Your task to perform on an android device: uninstall "Lyft - Rideshare, Bikes, Scooters & Transit" Image 0: 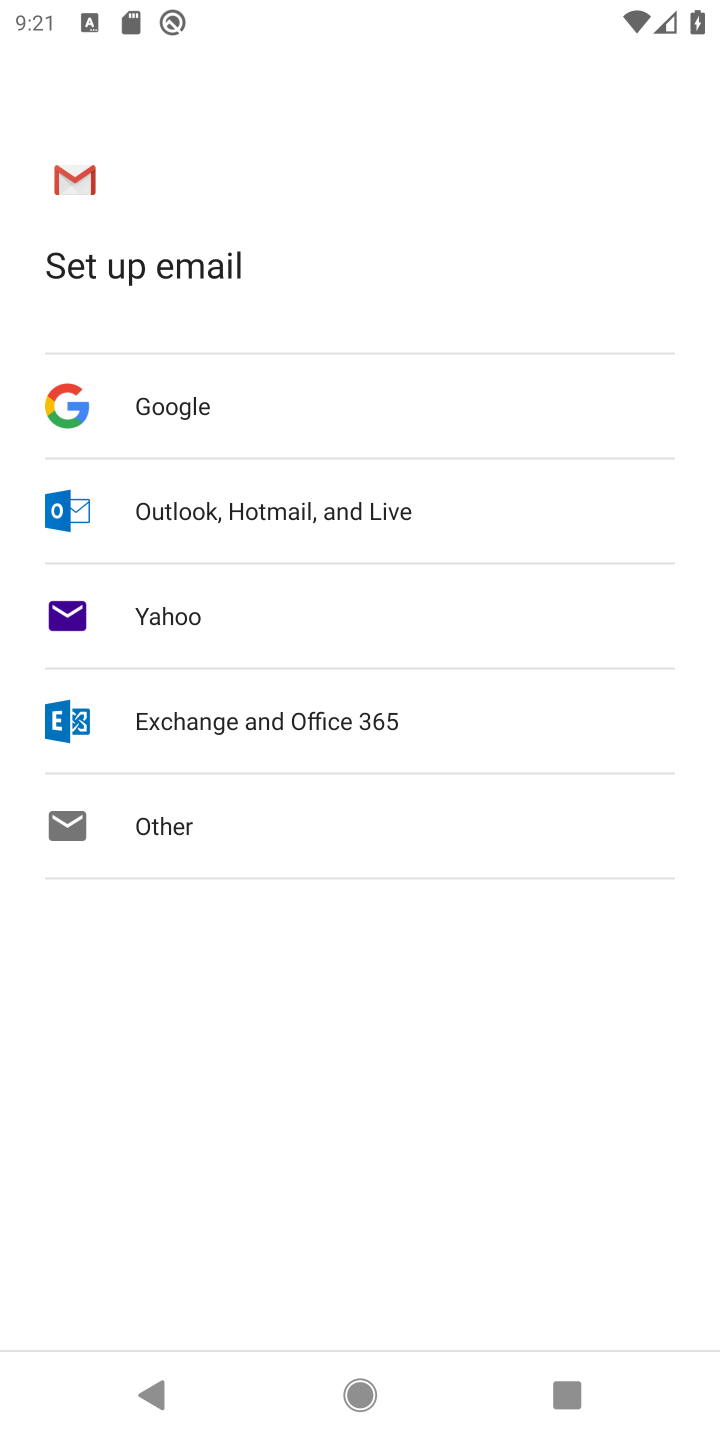
Step 0: press home button
Your task to perform on an android device: uninstall "Lyft - Rideshare, Bikes, Scooters & Transit" Image 1: 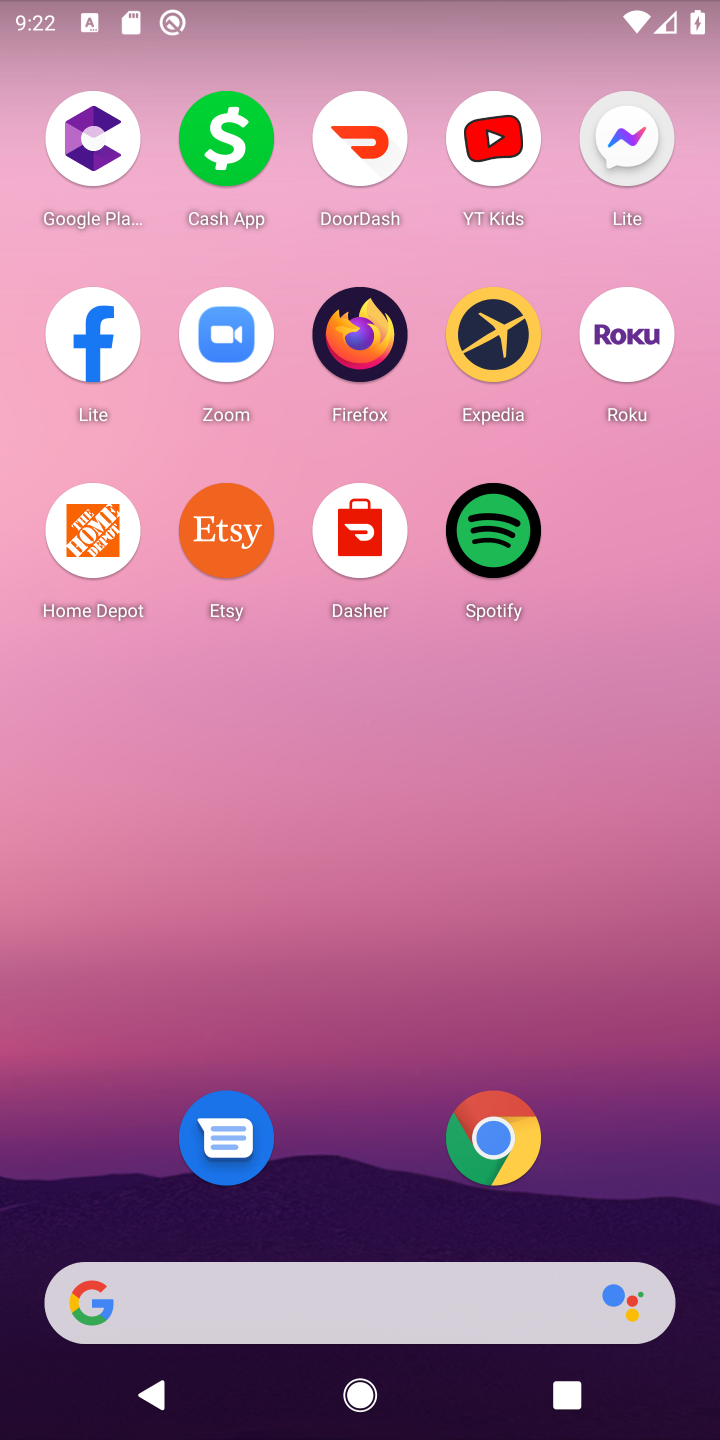
Step 1: drag from (323, 1223) to (385, 347)
Your task to perform on an android device: uninstall "Lyft - Rideshare, Bikes, Scooters & Transit" Image 2: 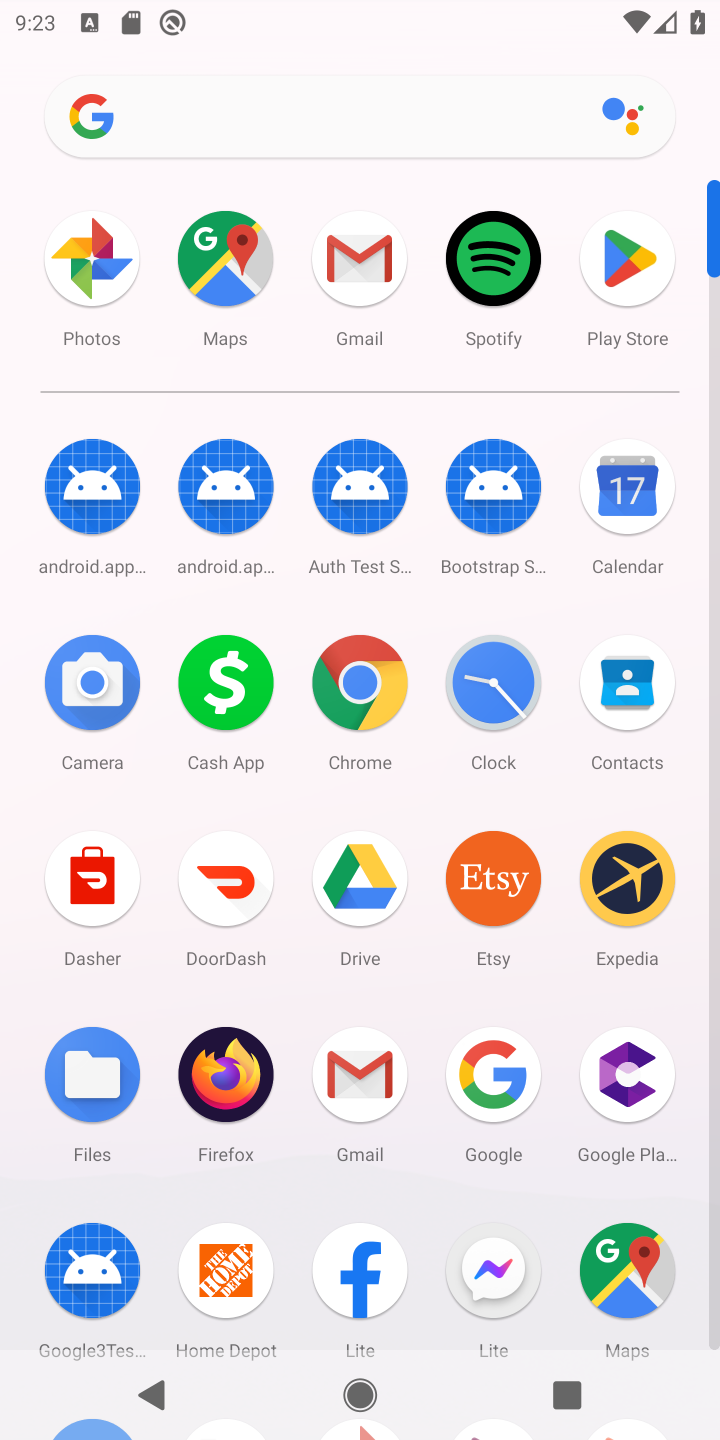
Step 2: click (634, 277)
Your task to perform on an android device: uninstall "Lyft - Rideshare, Bikes, Scooters & Transit" Image 3: 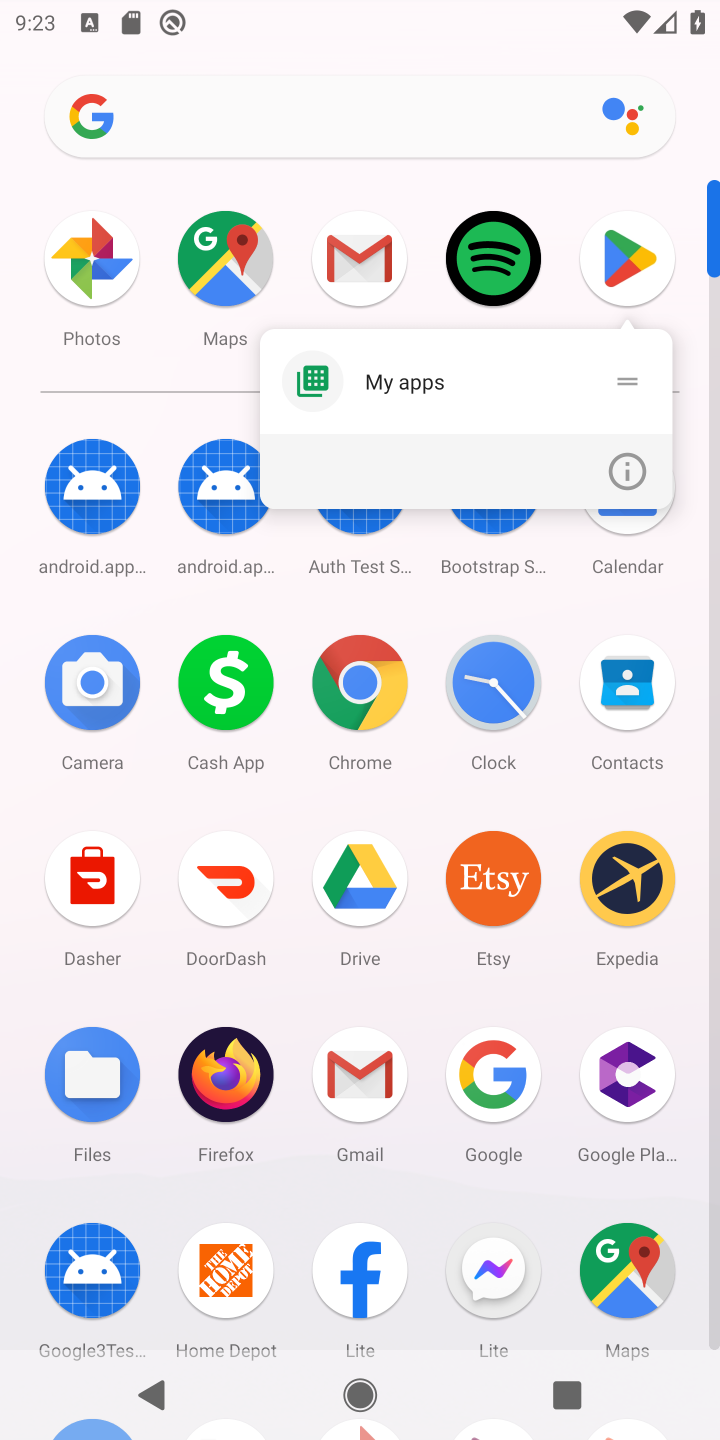
Step 3: click (631, 274)
Your task to perform on an android device: uninstall "Lyft - Rideshare, Bikes, Scooters & Transit" Image 4: 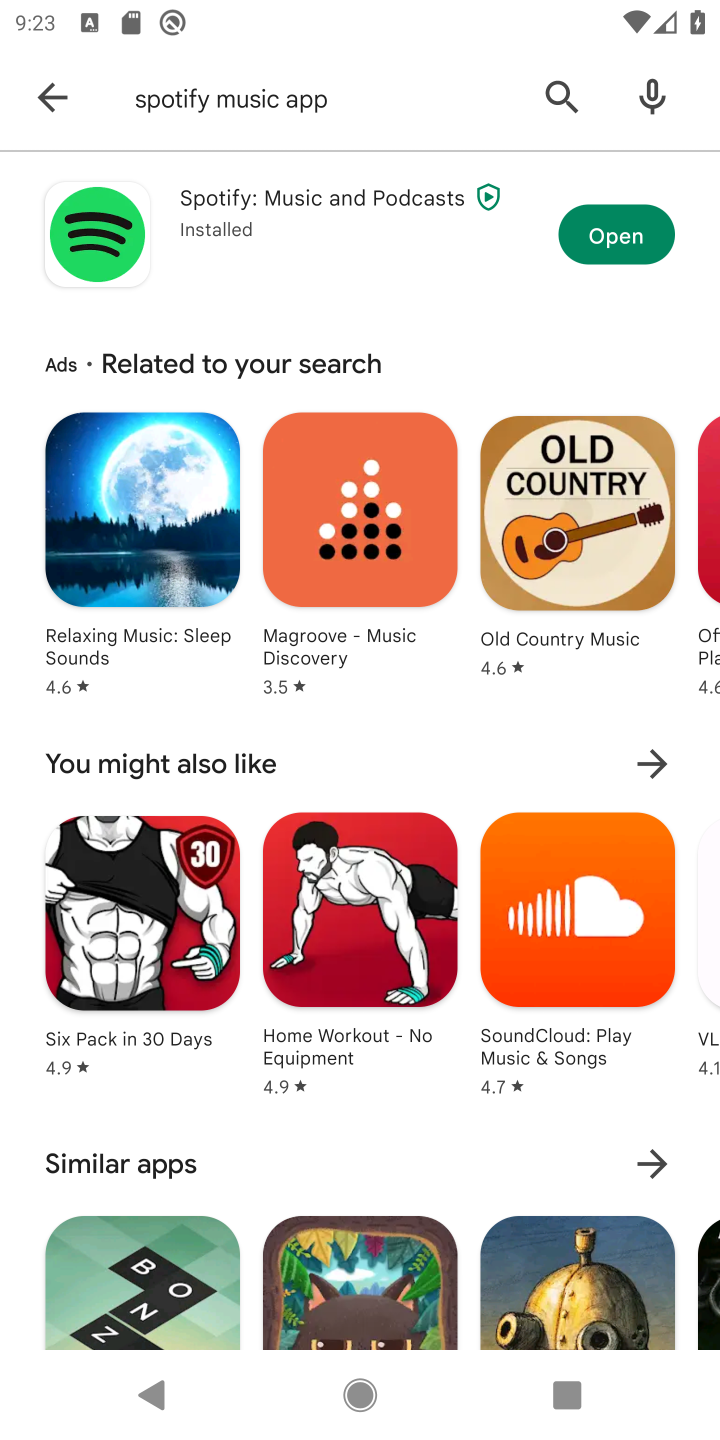
Step 4: click (63, 82)
Your task to perform on an android device: uninstall "Lyft - Rideshare, Bikes, Scooters & Transit" Image 5: 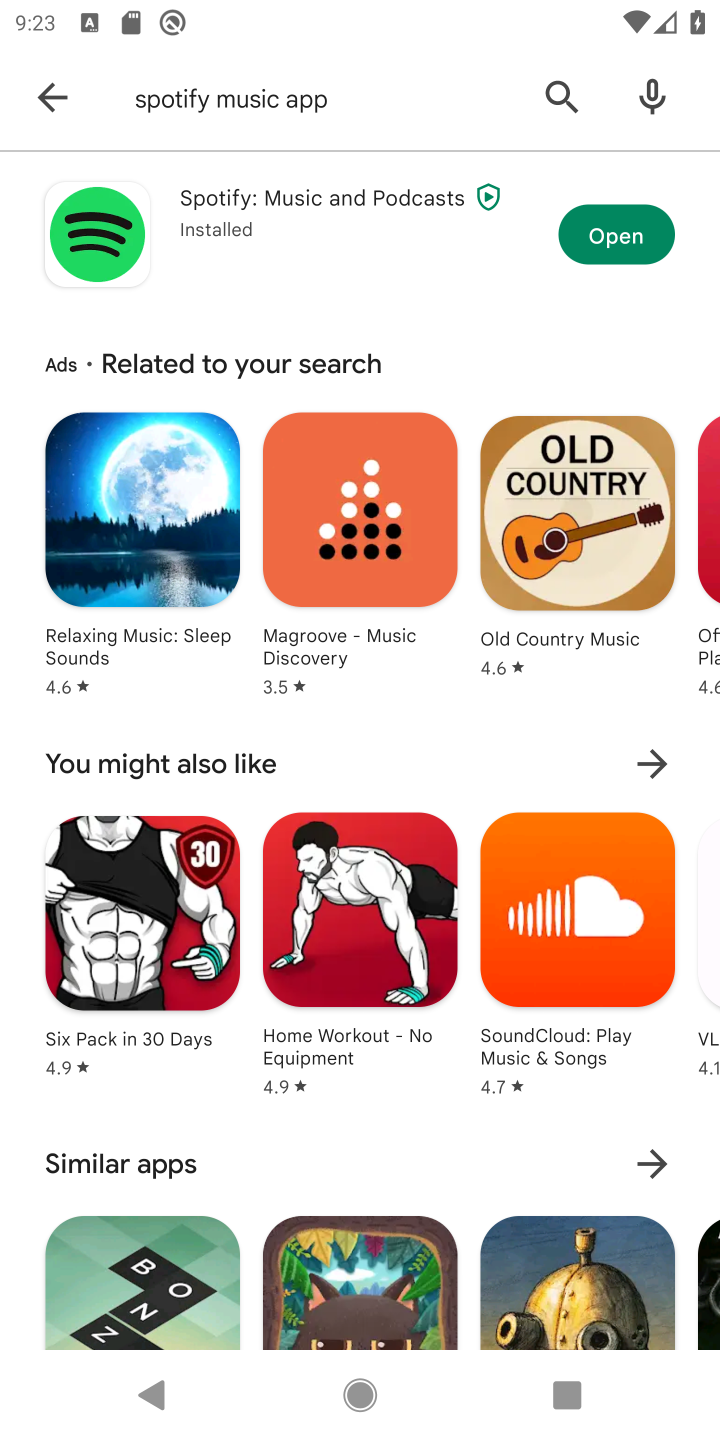
Step 5: click (61, 97)
Your task to perform on an android device: uninstall "Lyft - Rideshare, Bikes, Scooters & Transit" Image 6: 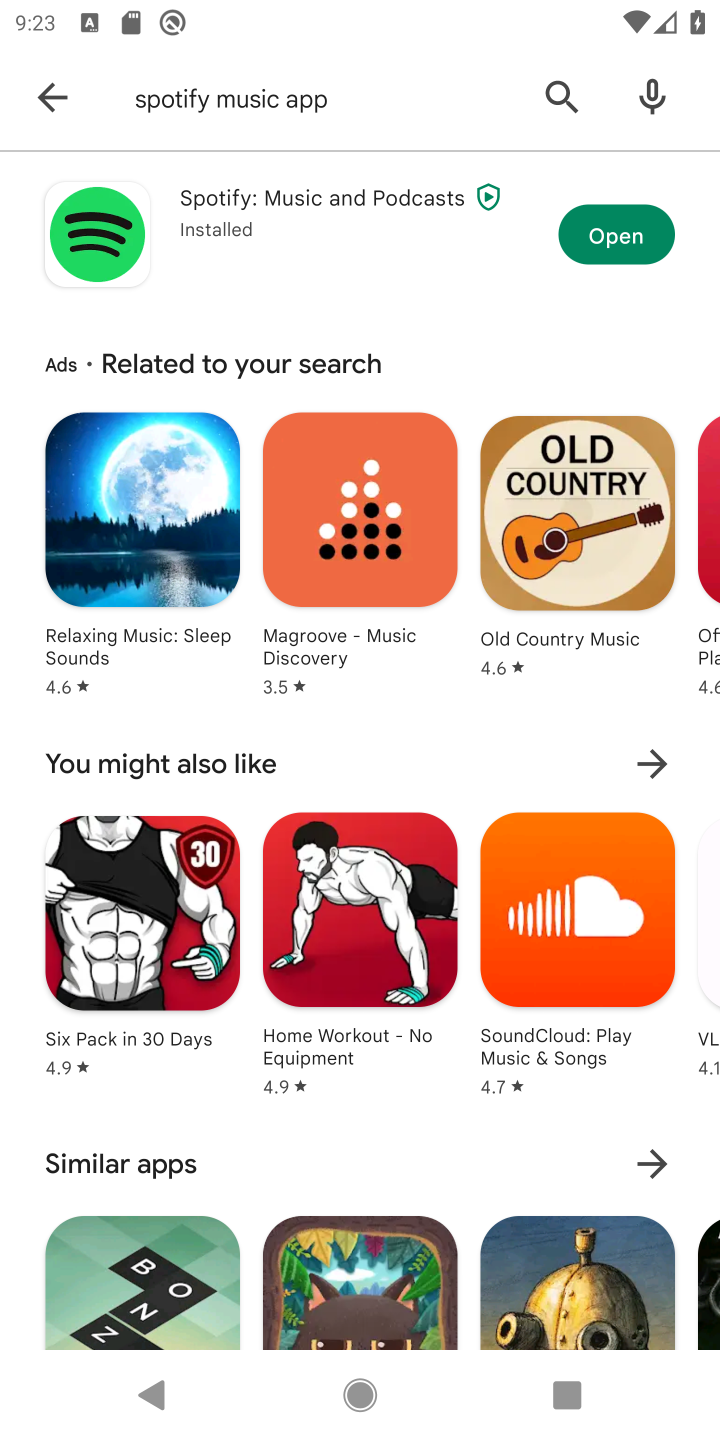
Step 6: click (61, 97)
Your task to perform on an android device: uninstall "Lyft - Rideshare, Bikes, Scooters & Transit" Image 7: 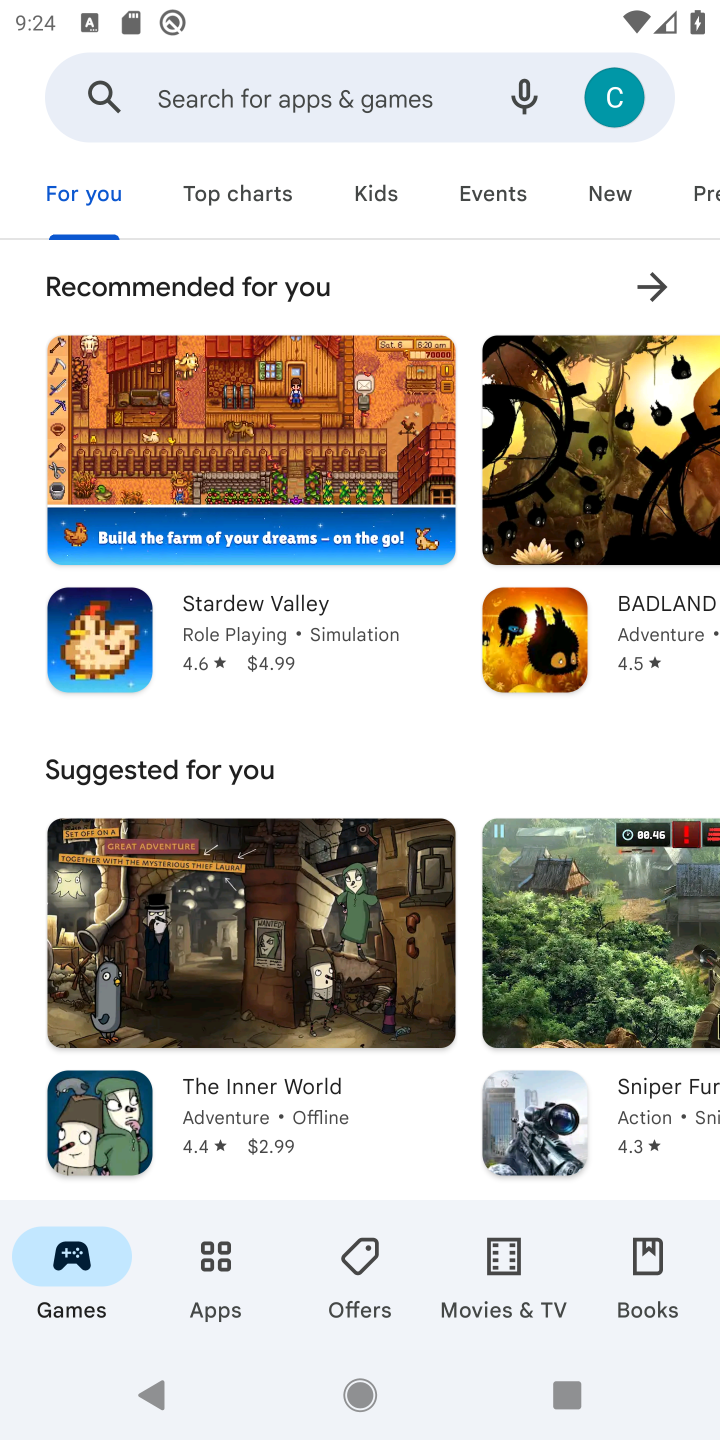
Step 7: click (284, 79)
Your task to perform on an android device: uninstall "Lyft - Rideshare, Bikes, Scooters & Transit" Image 8: 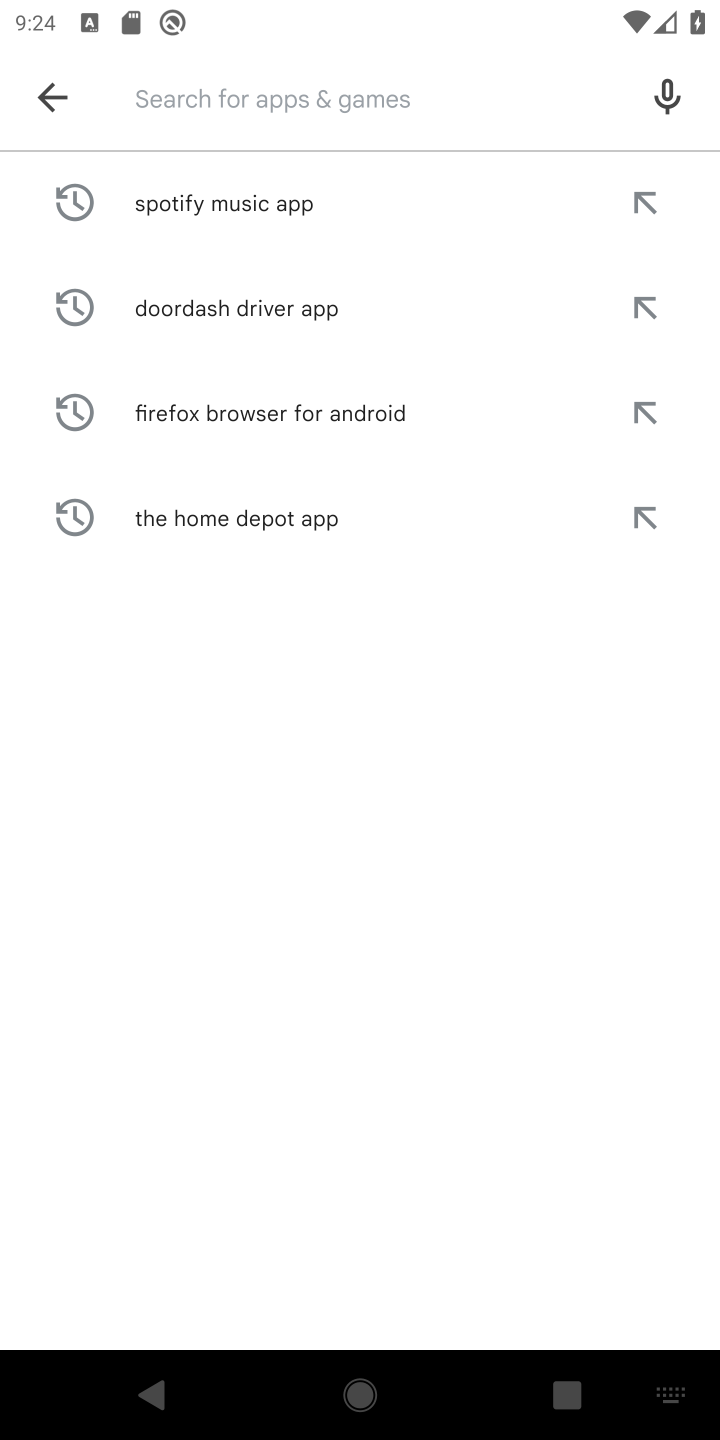
Step 8: type "Lyft - Rideshare, Bikes, Scooters & Transit" "
Your task to perform on an android device: uninstall "Lyft - Rideshare, Bikes, Scooters & Transit" Image 9: 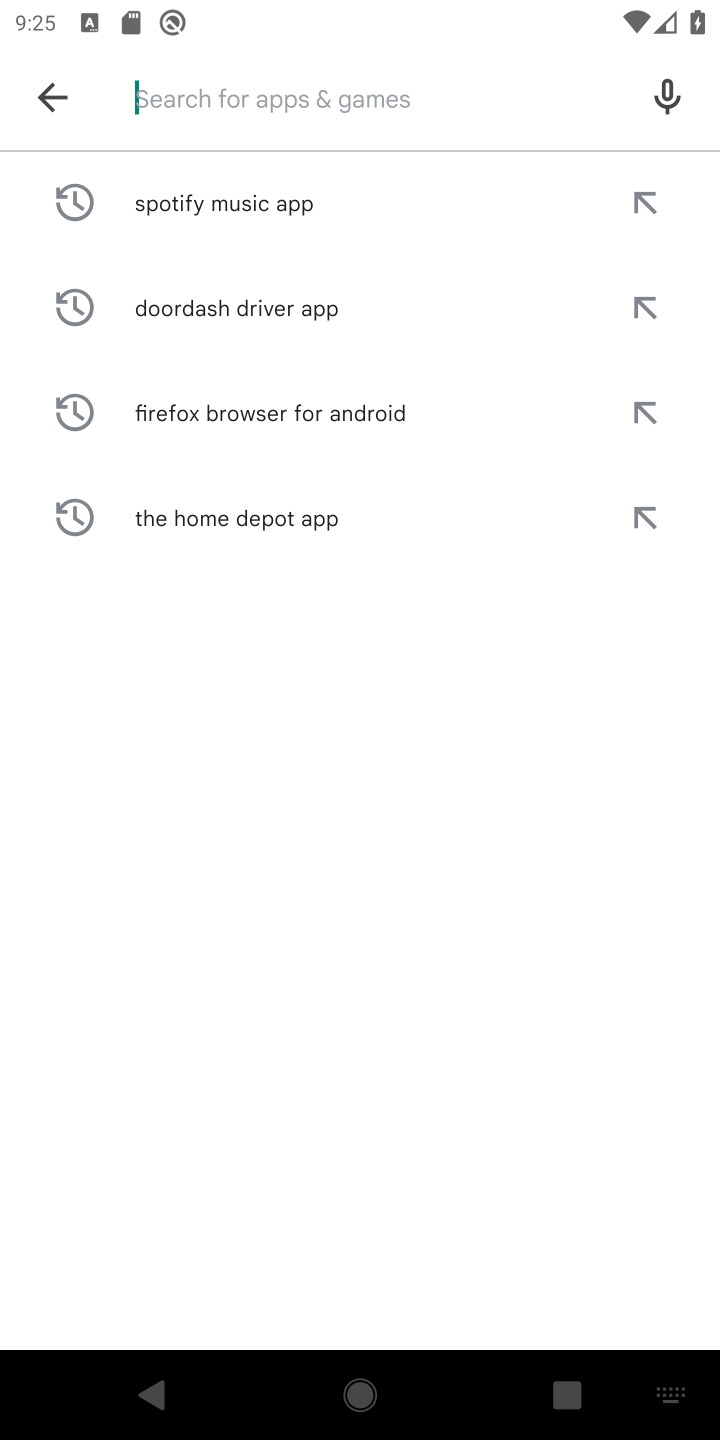
Step 9: click (253, 81)
Your task to perform on an android device: uninstall "Lyft - Rideshare, Bikes, Scooters & Transit" Image 10: 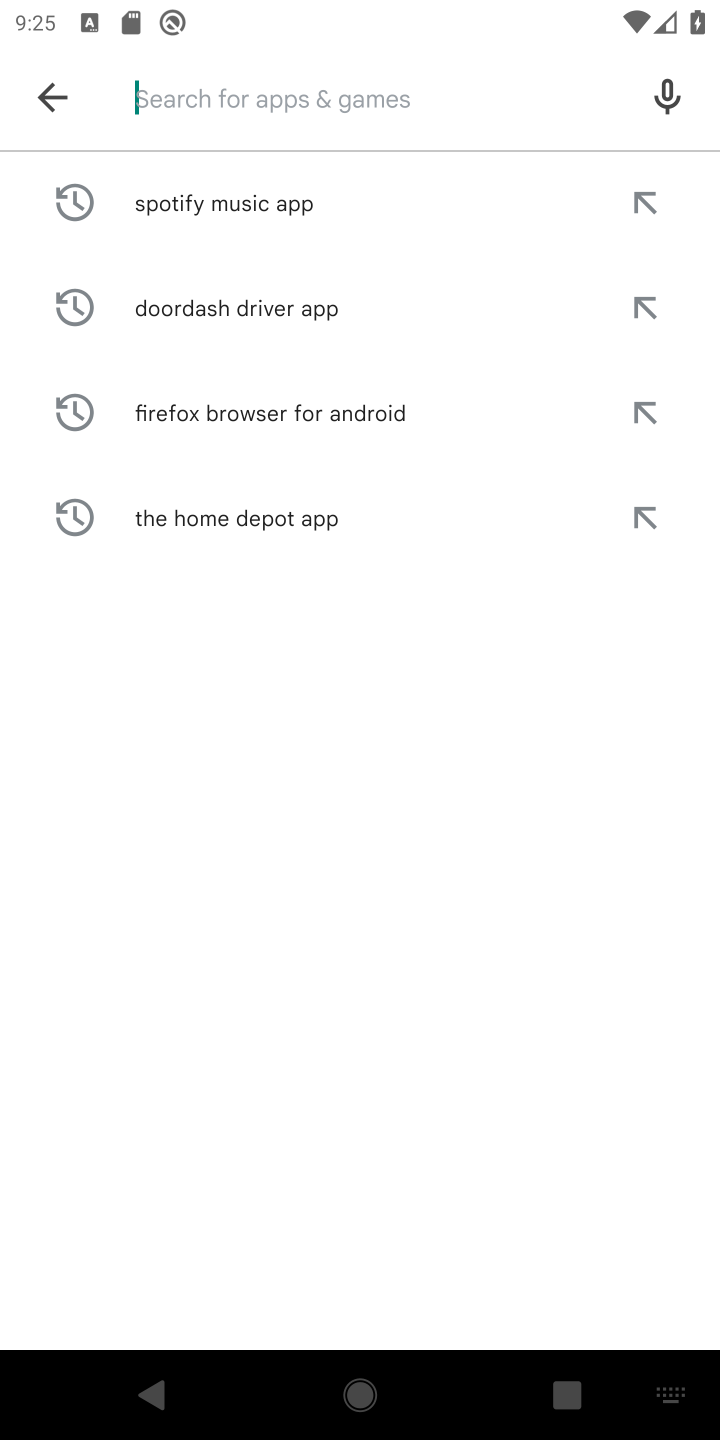
Step 10: type "Lyft - Rideshare, Bikes, Scooters & Transit "
Your task to perform on an android device: uninstall "Lyft - Rideshare, Bikes, Scooters & Transit" Image 11: 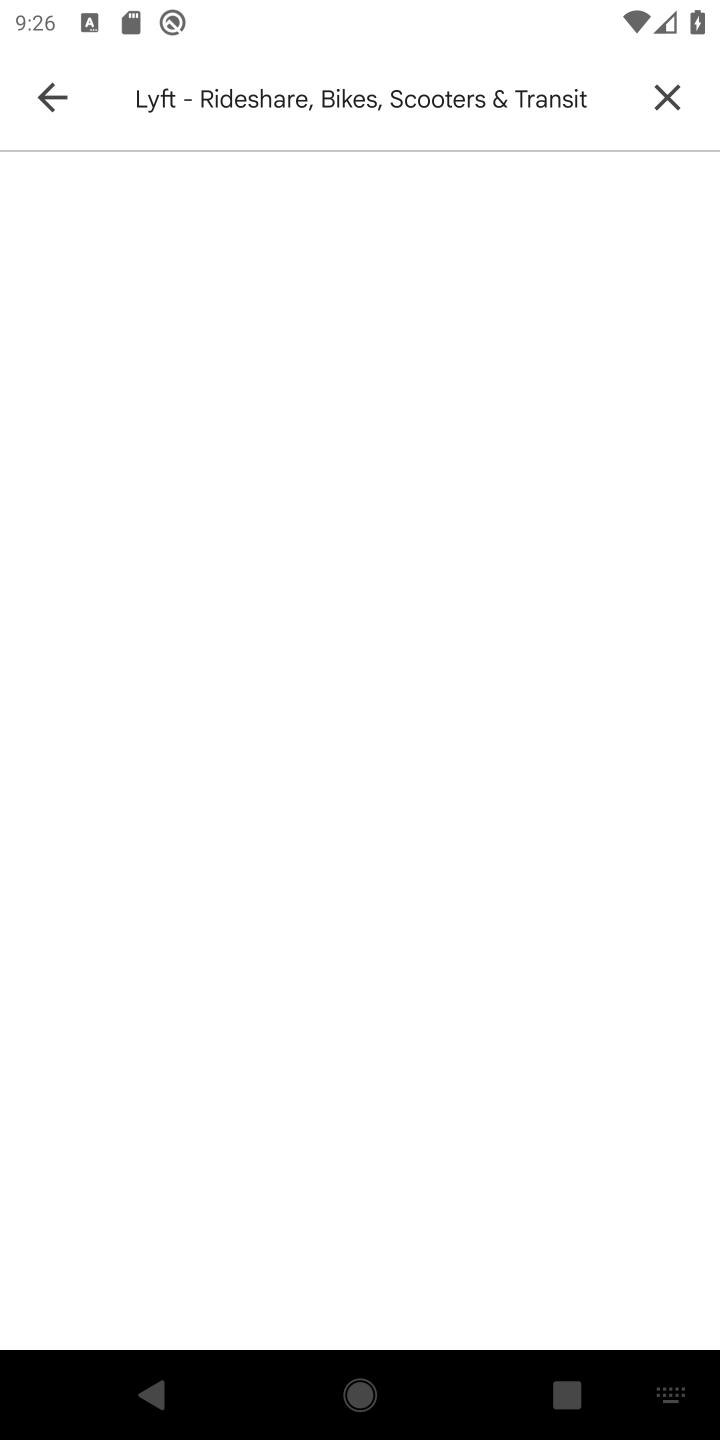
Step 11: task complete